Your task to perform on an android device: Is it going to rain today? Image 0: 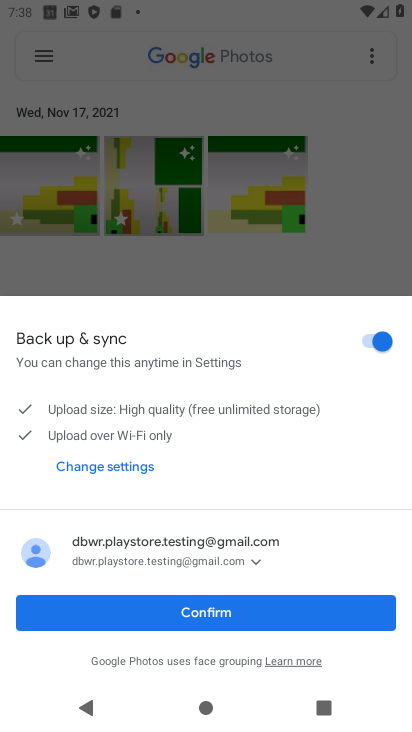
Step 0: press home button
Your task to perform on an android device: Is it going to rain today? Image 1: 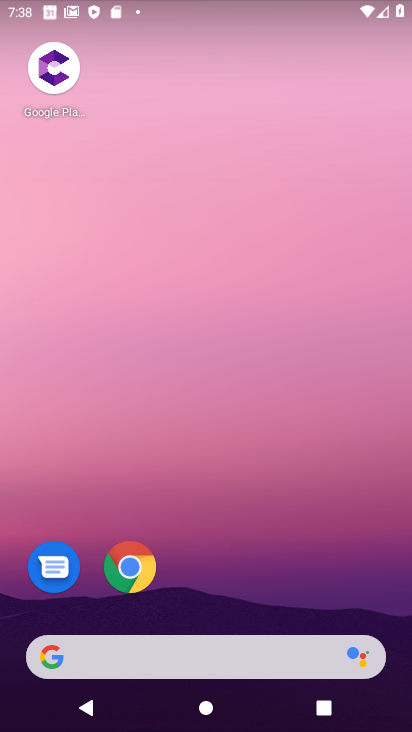
Step 1: drag from (72, 407) to (409, 418)
Your task to perform on an android device: Is it going to rain today? Image 2: 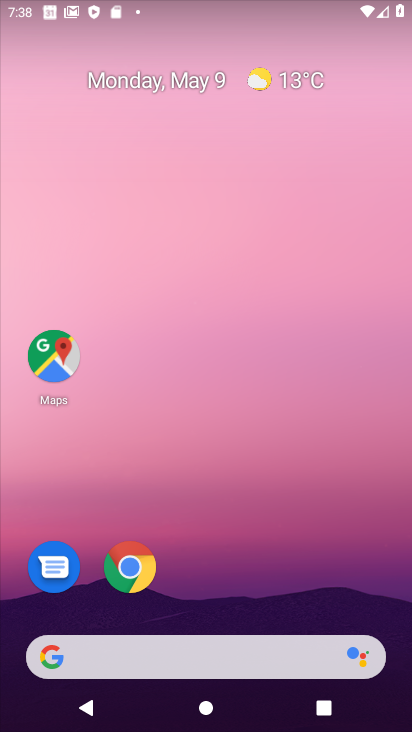
Step 2: click (306, 74)
Your task to perform on an android device: Is it going to rain today? Image 3: 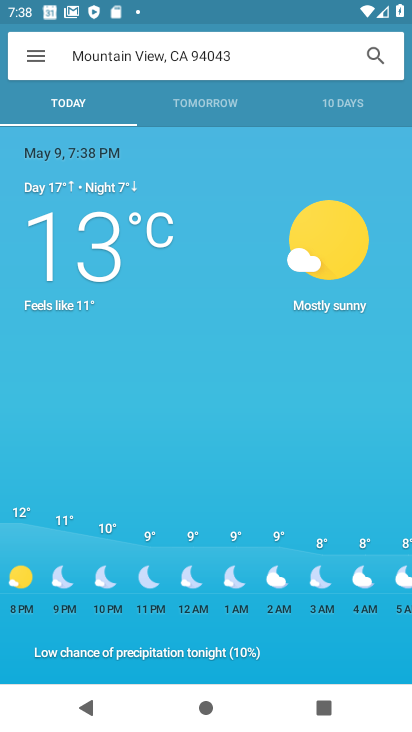
Step 3: task complete